Your task to perform on an android device: Open Google Chrome Image 0: 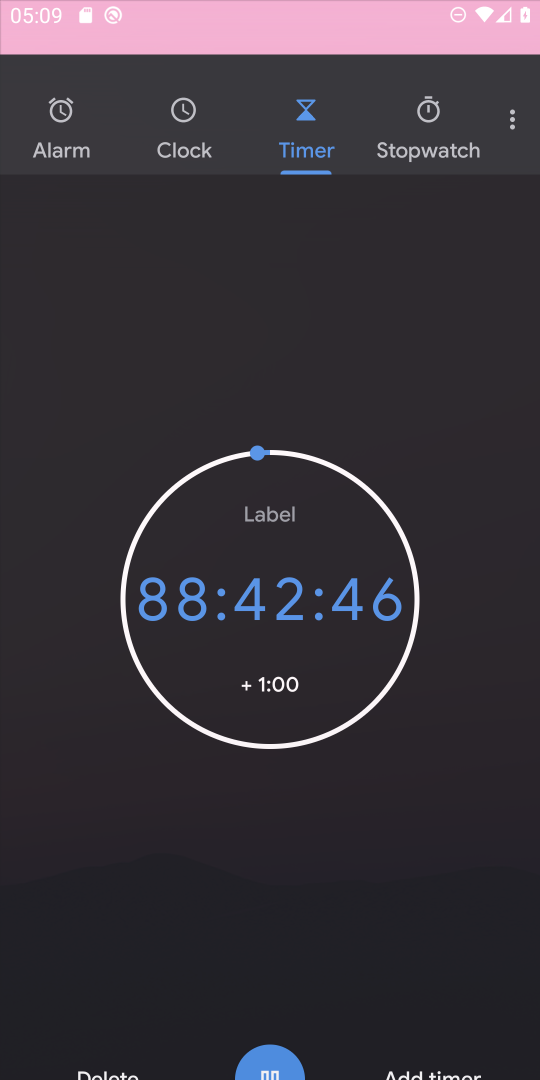
Step 0: press home button
Your task to perform on an android device: Open Google Chrome Image 1: 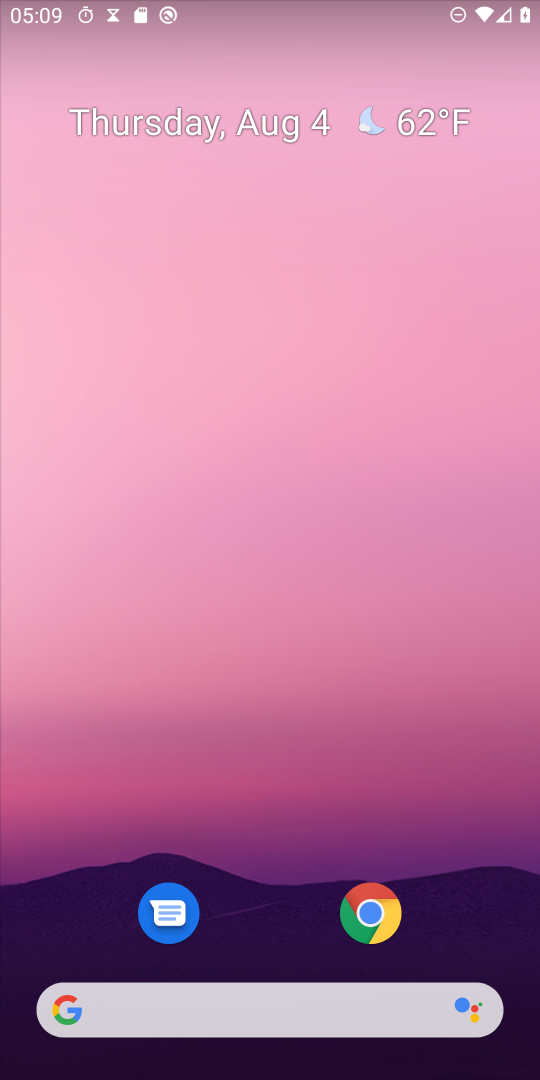
Step 1: press home button
Your task to perform on an android device: Open Google Chrome Image 2: 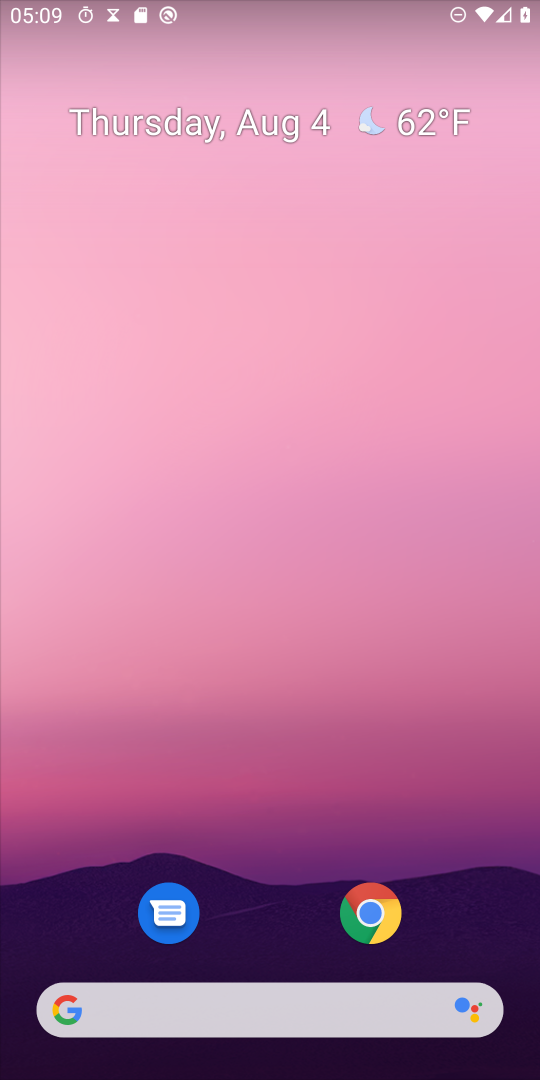
Step 2: drag from (424, 1009) to (469, 13)
Your task to perform on an android device: Open Google Chrome Image 3: 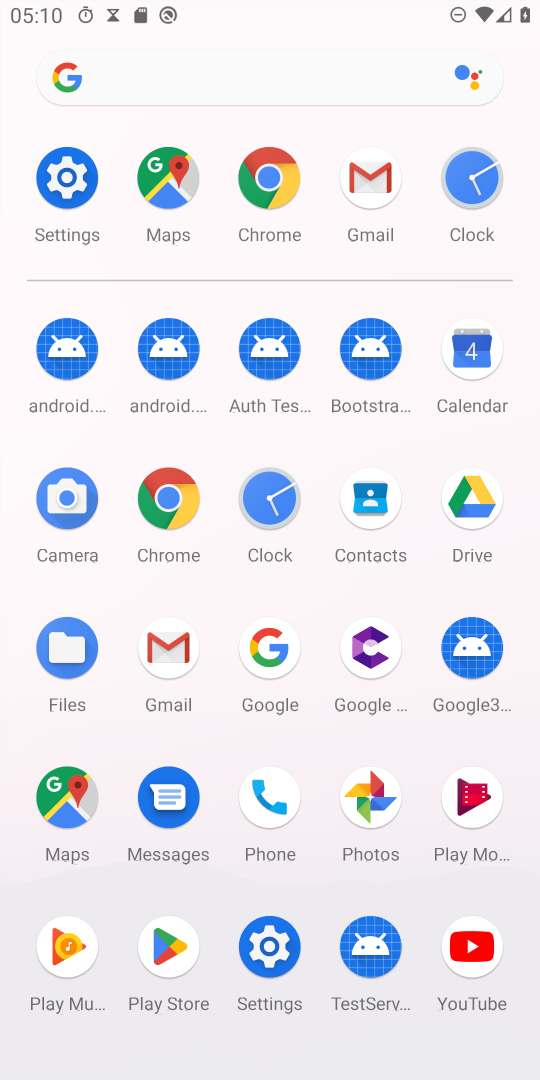
Step 3: click (182, 486)
Your task to perform on an android device: Open Google Chrome Image 4: 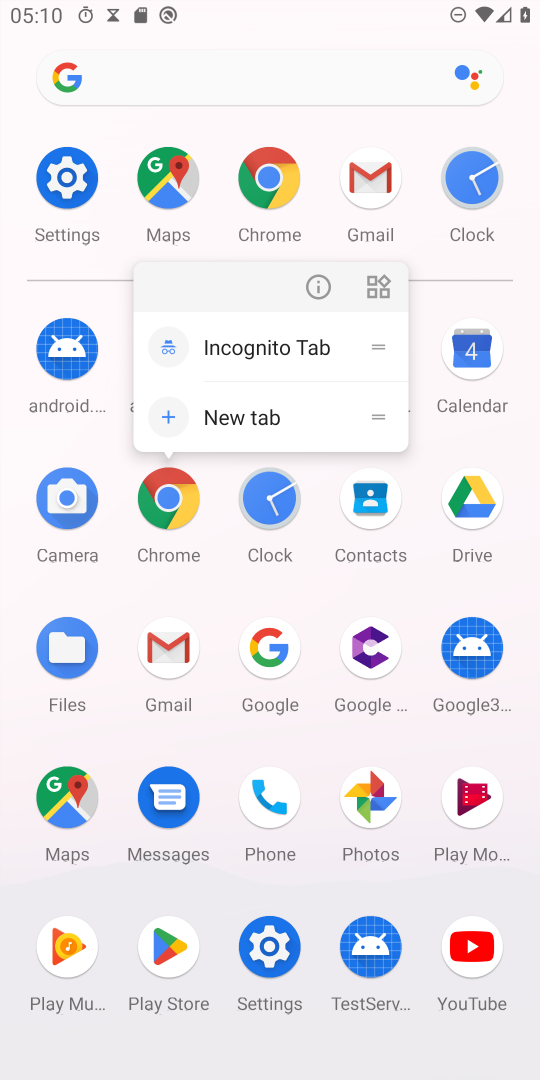
Step 4: click (182, 486)
Your task to perform on an android device: Open Google Chrome Image 5: 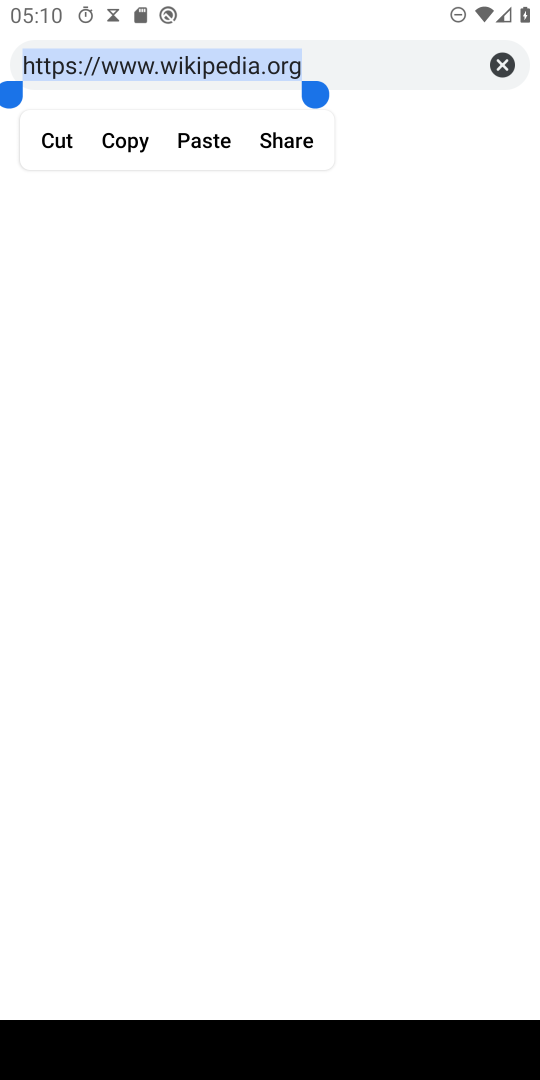
Step 5: click (506, 70)
Your task to perform on an android device: Open Google Chrome Image 6: 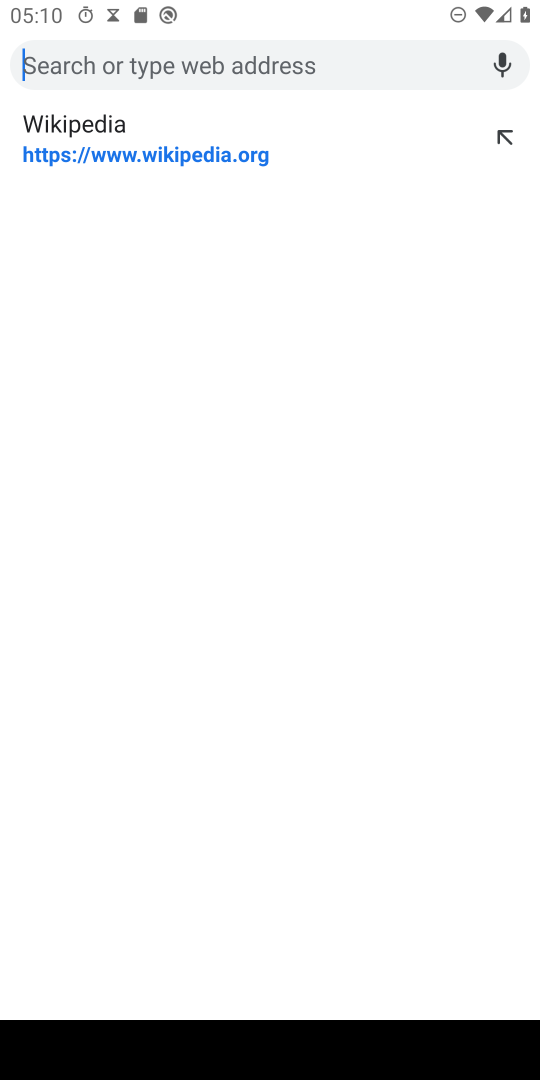
Step 6: task complete